Your task to perform on an android device: Open Google Maps Image 0: 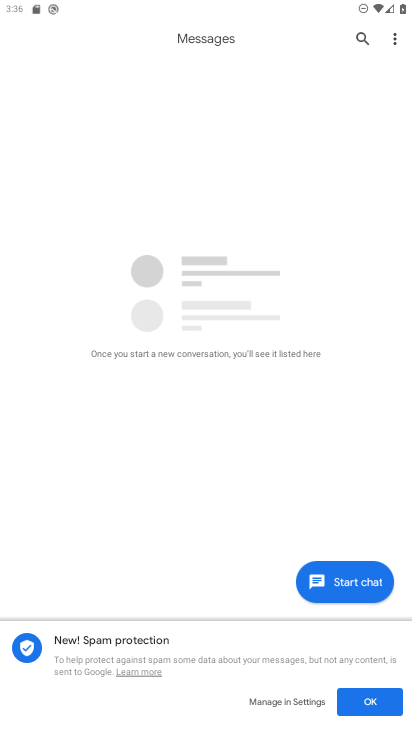
Step 0: press home button
Your task to perform on an android device: Open Google Maps Image 1: 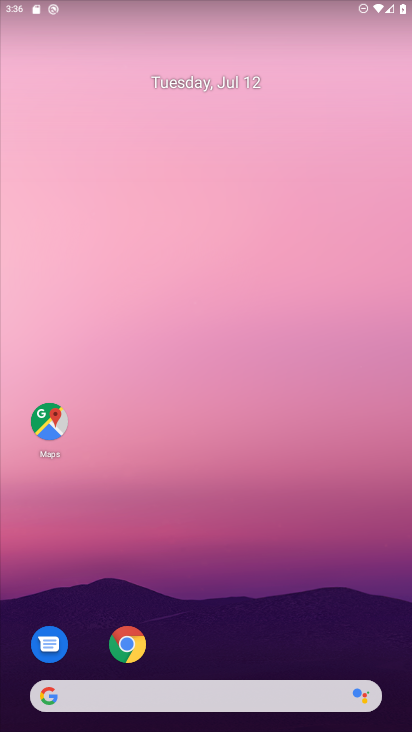
Step 1: drag from (240, 464) to (247, 183)
Your task to perform on an android device: Open Google Maps Image 2: 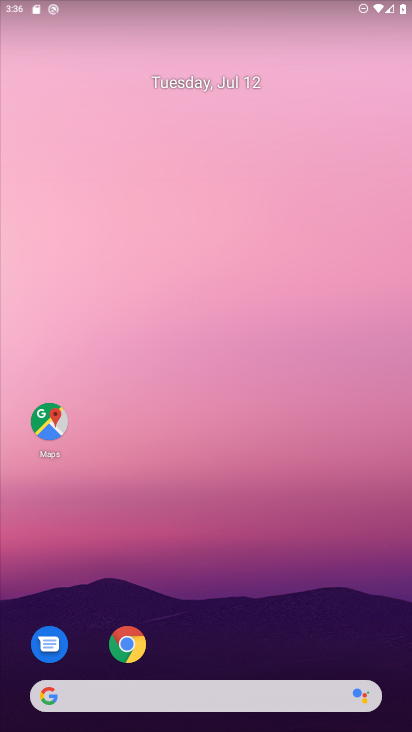
Step 2: drag from (274, 590) to (251, 93)
Your task to perform on an android device: Open Google Maps Image 3: 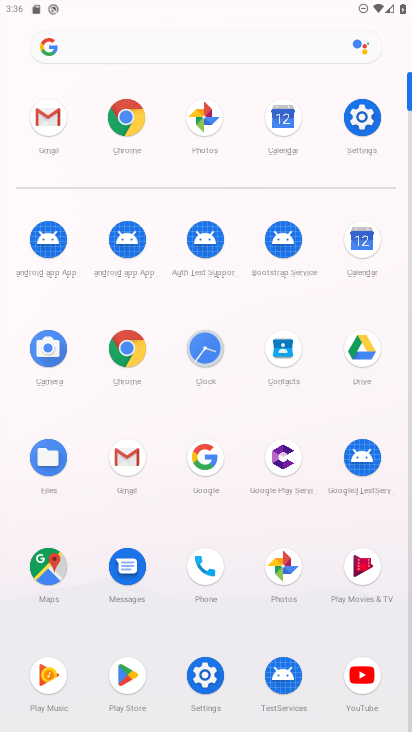
Step 3: click (52, 565)
Your task to perform on an android device: Open Google Maps Image 4: 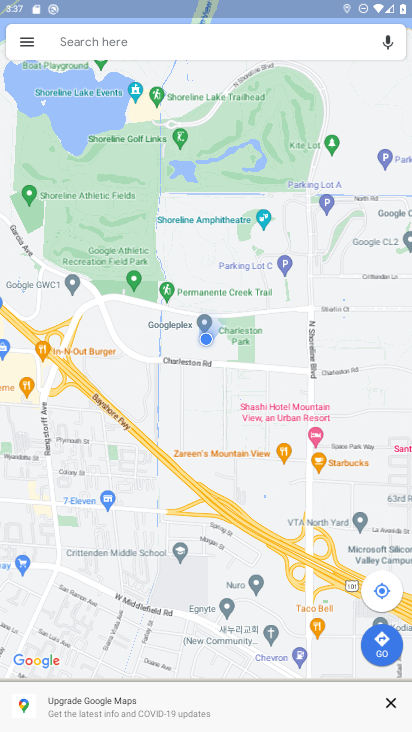
Step 4: task complete